Your task to perform on an android device: add a label to a message in the gmail app Image 0: 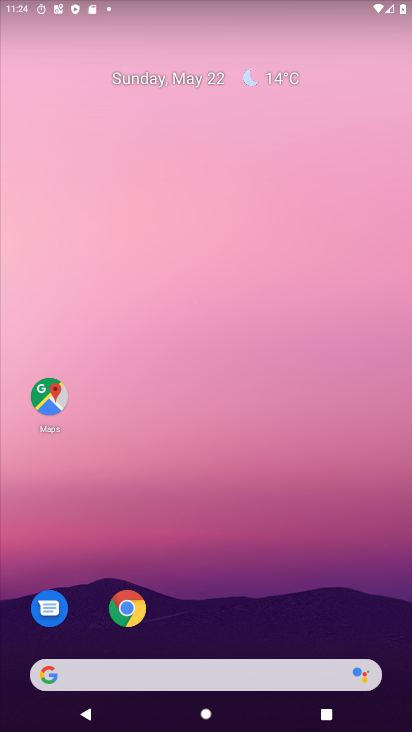
Step 0: drag from (180, 727) to (169, 30)
Your task to perform on an android device: add a label to a message in the gmail app Image 1: 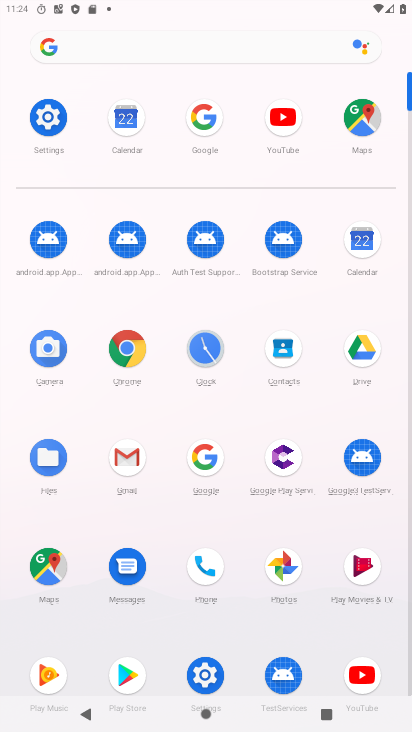
Step 1: click (132, 453)
Your task to perform on an android device: add a label to a message in the gmail app Image 2: 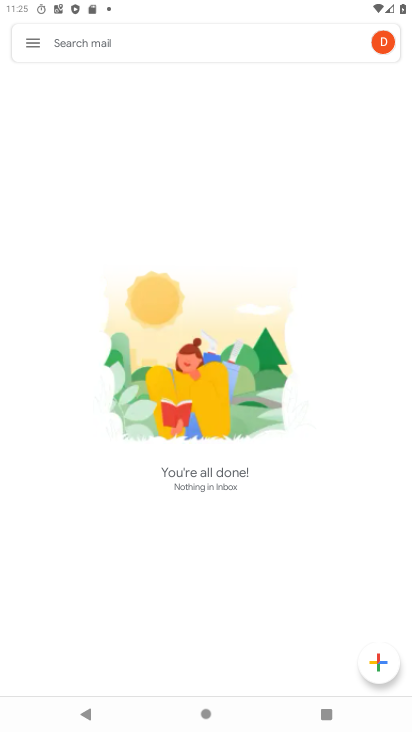
Step 2: task complete